Your task to perform on an android device: check out phone information Image 0: 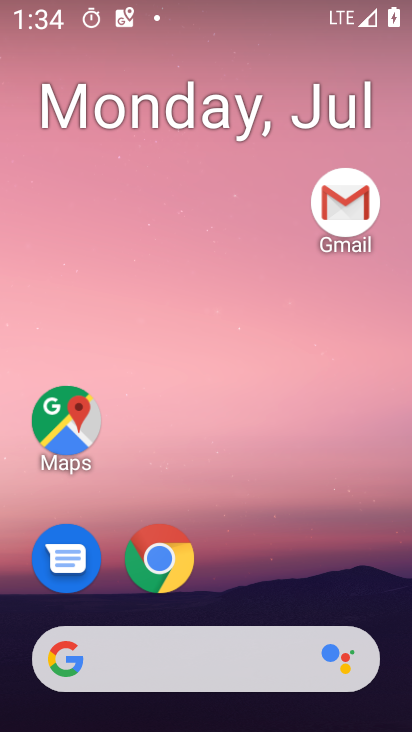
Step 0: drag from (300, 576) to (339, 123)
Your task to perform on an android device: check out phone information Image 1: 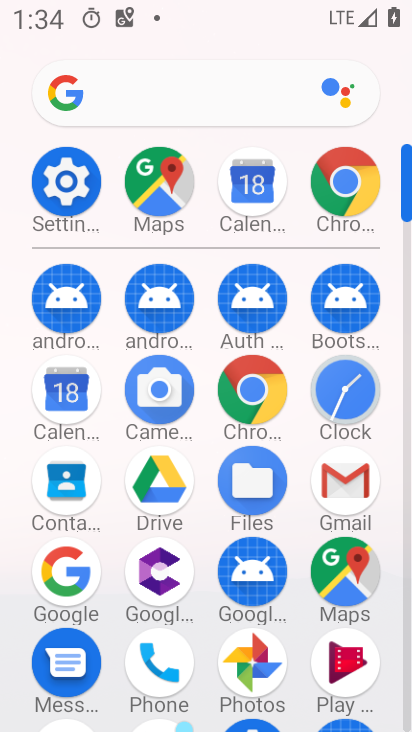
Step 1: click (183, 646)
Your task to perform on an android device: check out phone information Image 2: 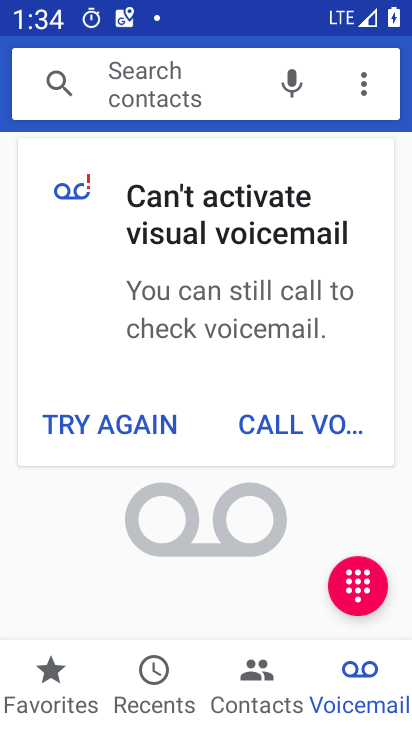
Step 2: task complete